Your task to perform on an android device: open device folders in google photos Image 0: 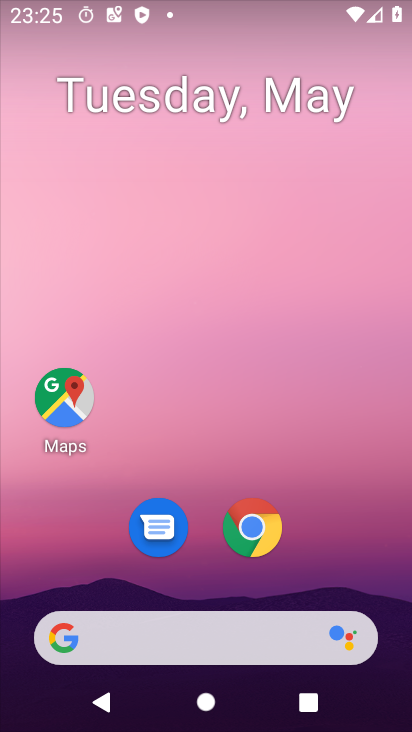
Step 0: drag from (246, 550) to (273, 205)
Your task to perform on an android device: open device folders in google photos Image 1: 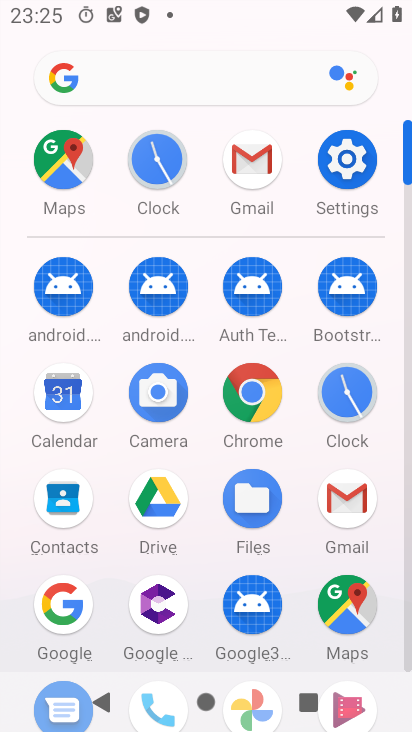
Step 1: drag from (199, 636) to (196, 287)
Your task to perform on an android device: open device folders in google photos Image 2: 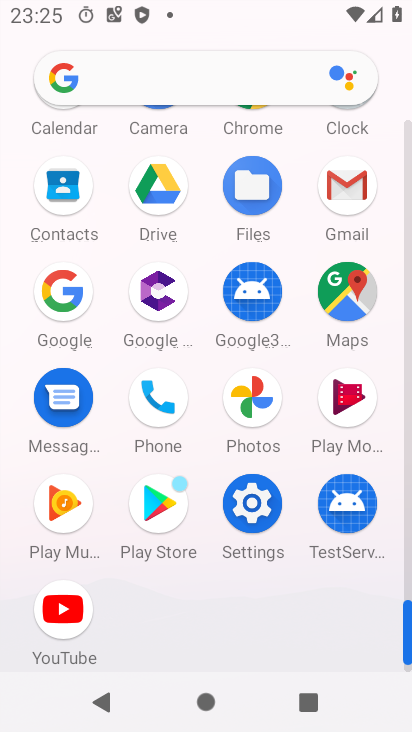
Step 2: click (253, 398)
Your task to perform on an android device: open device folders in google photos Image 3: 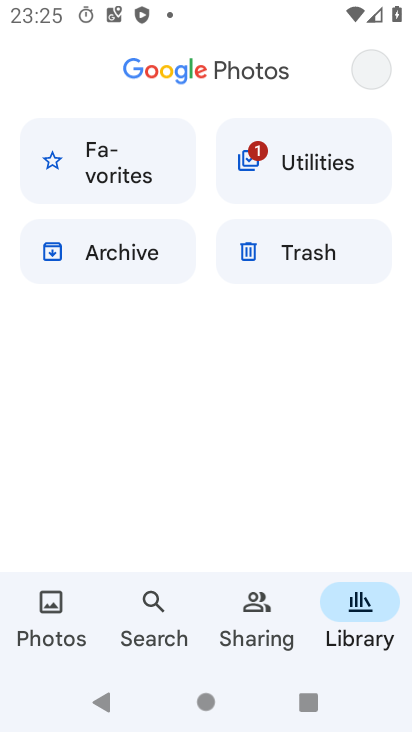
Step 3: task complete